Your task to perform on an android device: Show me popular videos on Youtube Image 0: 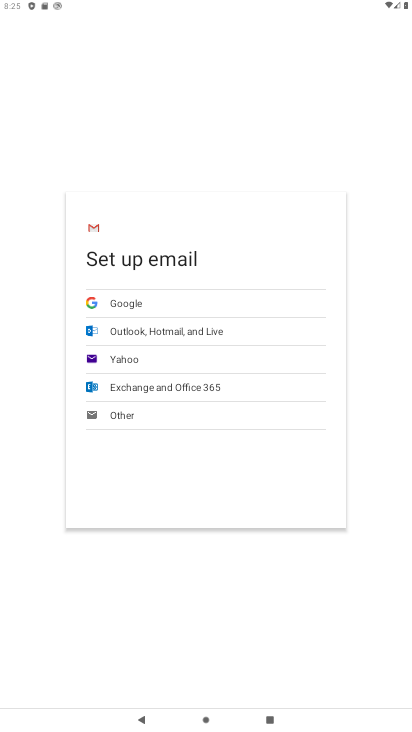
Step 0: press home button
Your task to perform on an android device: Show me popular videos on Youtube Image 1: 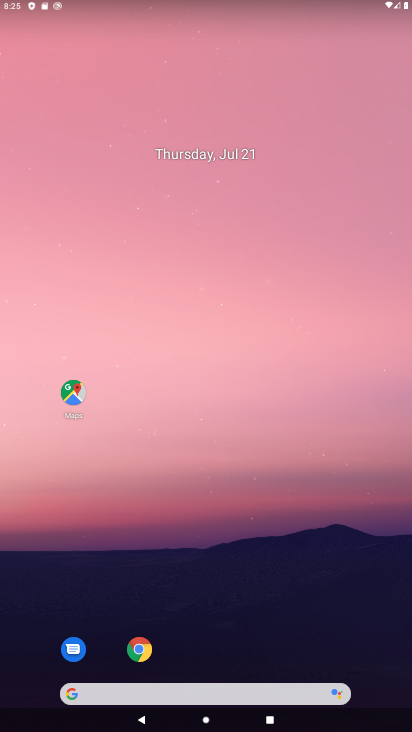
Step 1: drag from (245, 673) to (227, 90)
Your task to perform on an android device: Show me popular videos on Youtube Image 2: 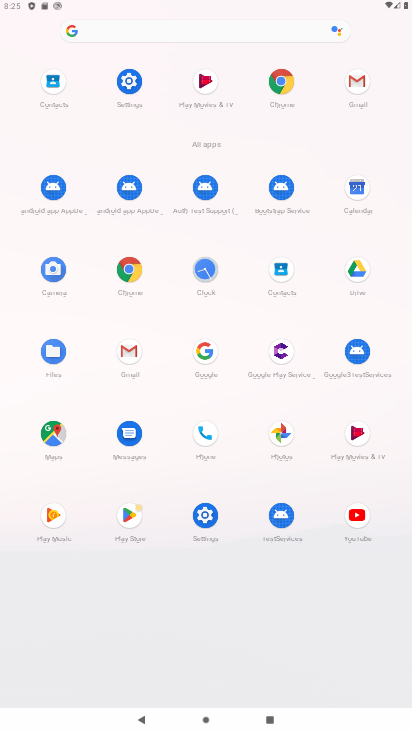
Step 2: click (347, 531)
Your task to perform on an android device: Show me popular videos on Youtube Image 3: 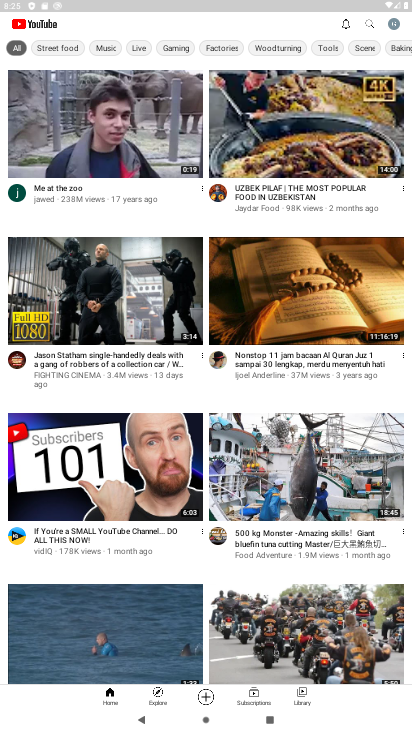
Step 3: drag from (211, 151) to (202, 570)
Your task to perform on an android device: Show me popular videos on Youtube Image 4: 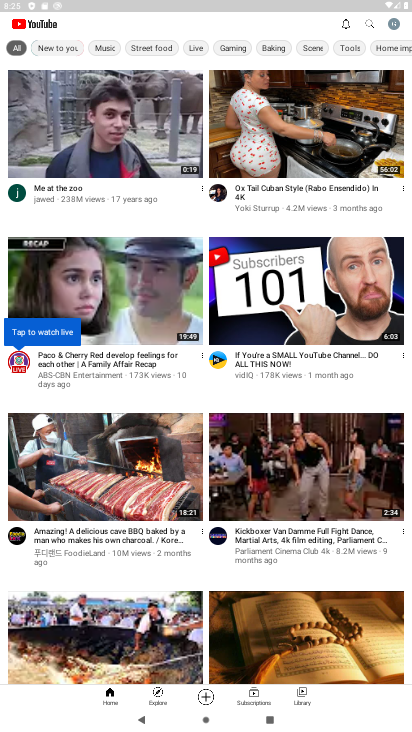
Step 4: drag from (109, 130) to (125, 586)
Your task to perform on an android device: Show me popular videos on Youtube Image 5: 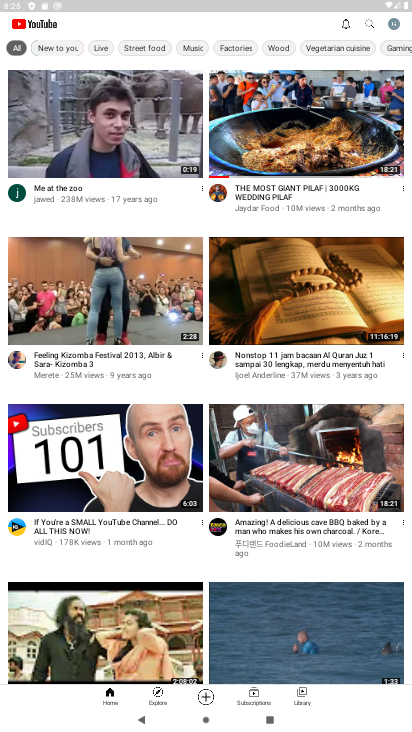
Step 5: click (152, 701)
Your task to perform on an android device: Show me popular videos on Youtube Image 6: 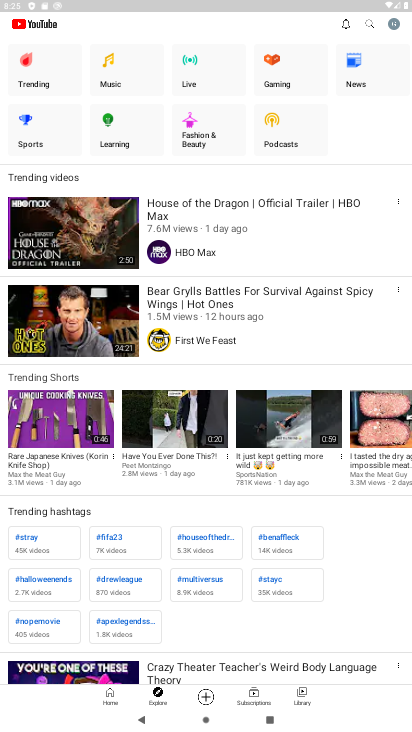
Step 6: click (31, 81)
Your task to perform on an android device: Show me popular videos on Youtube Image 7: 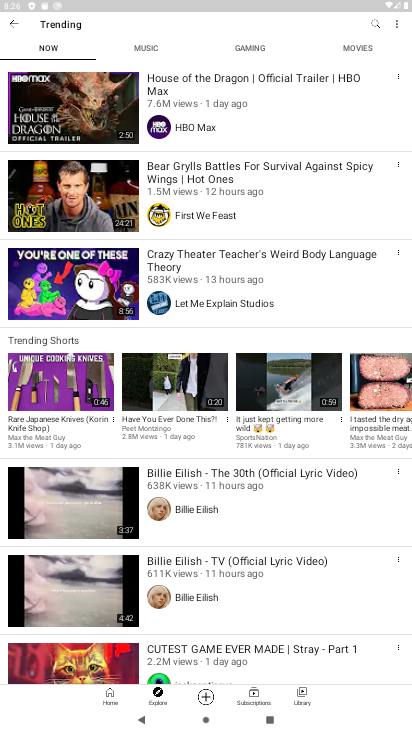
Step 7: task complete